Your task to perform on an android device: turn on javascript in the chrome app Image 0: 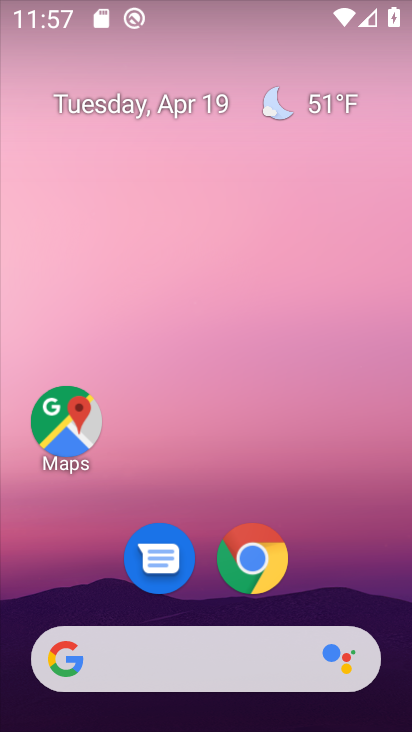
Step 0: click (251, 556)
Your task to perform on an android device: turn on javascript in the chrome app Image 1: 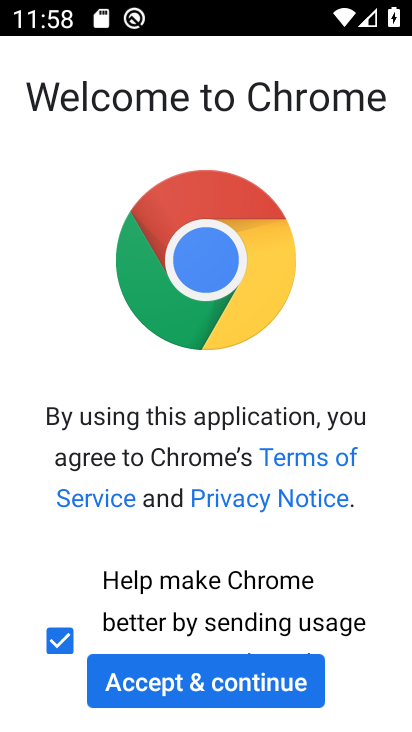
Step 1: click (192, 699)
Your task to perform on an android device: turn on javascript in the chrome app Image 2: 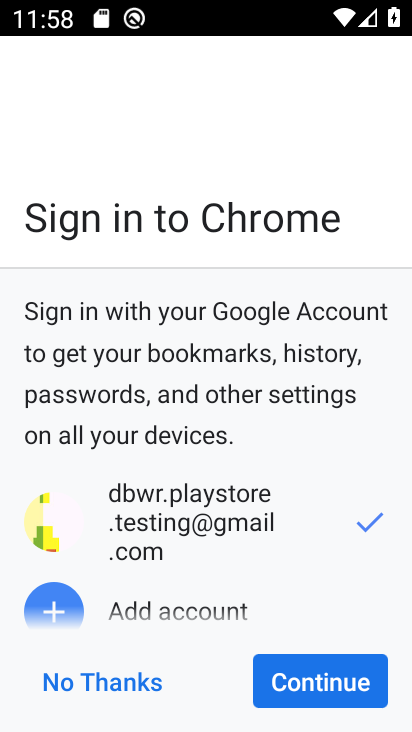
Step 2: click (321, 677)
Your task to perform on an android device: turn on javascript in the chrome app Image 3: 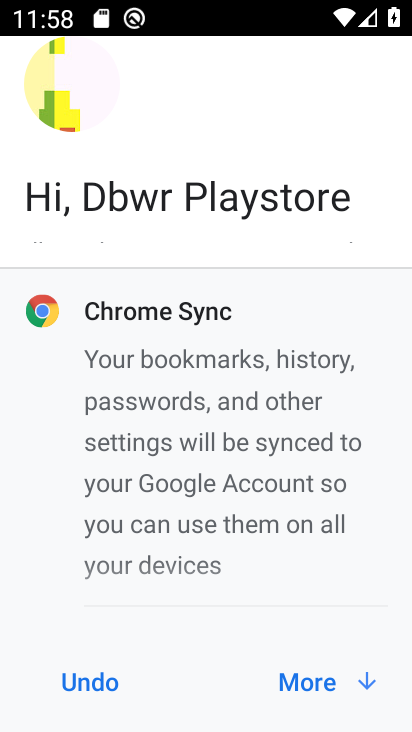
Step 3: click (330, 680)
Your task to perform on an android device: turn on javascript in the chrome app Image 4: 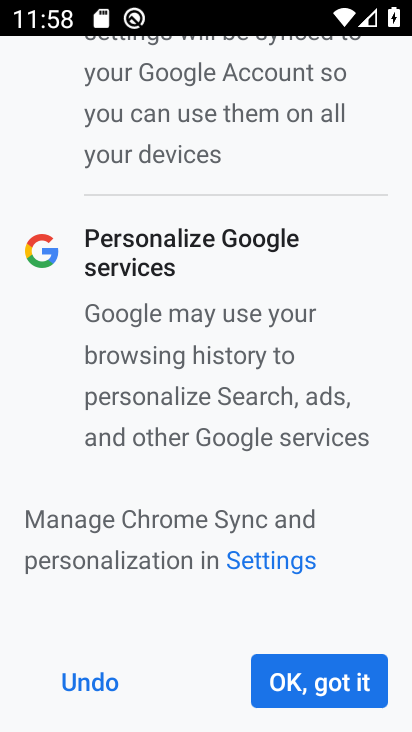
Step 4: click (322, 680)
Your task to perform on an android device: turn on javascript in the chrome app Image 5: 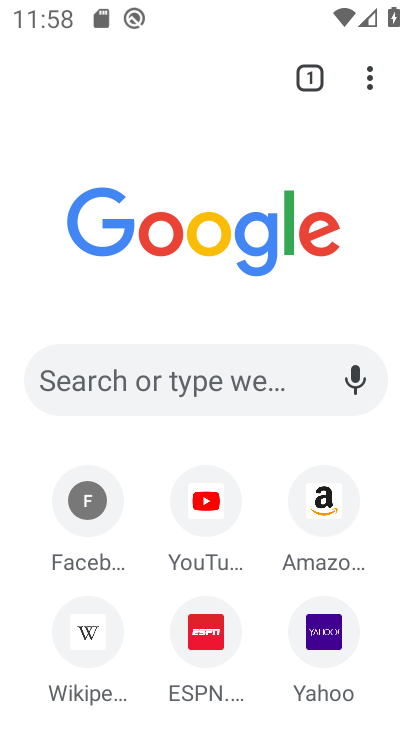
Step 5: click (375, 86)
Your task to perform on an android device: turn on javascript in the chrome app Image 6: 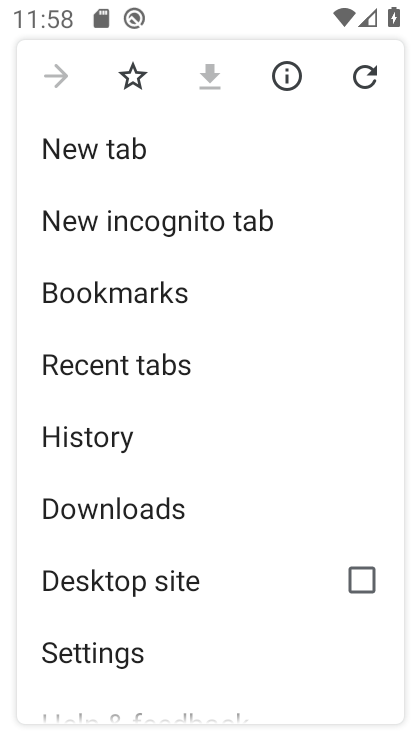
Step 6: drag from (221, 612) to (249, 358)
Your task to perform on an android device: turn on javascript in the chrome app Image 7: 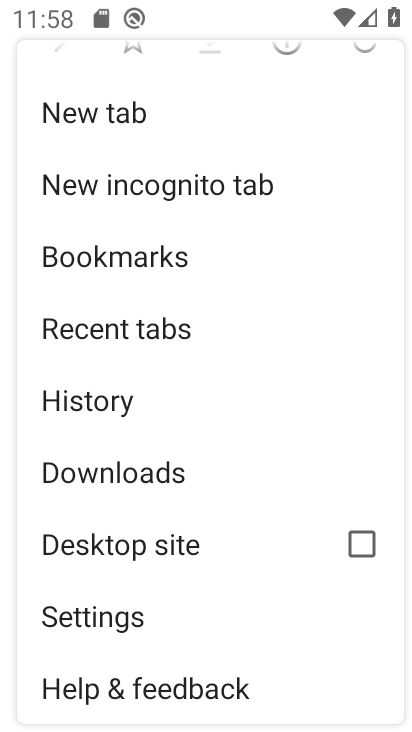
Step 7: click (109, 615)
Your task to perform on an android device: turn on javascript in the chrome app Image 8: 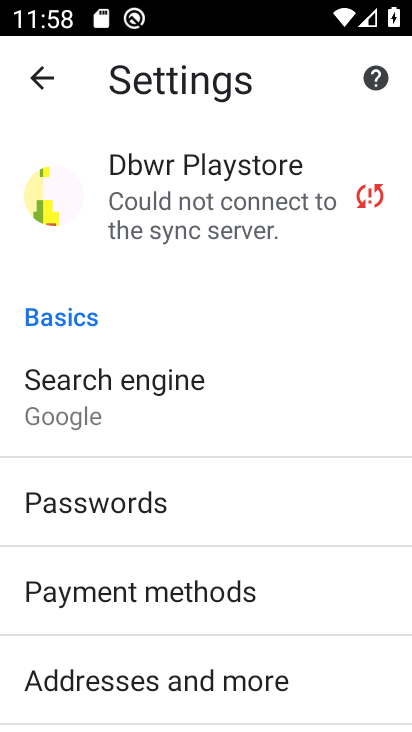
Step 8: drag from (289, 638) to (277, 365)
Your task to perform on an android device: turn on javascript in the chrome app Image 9: 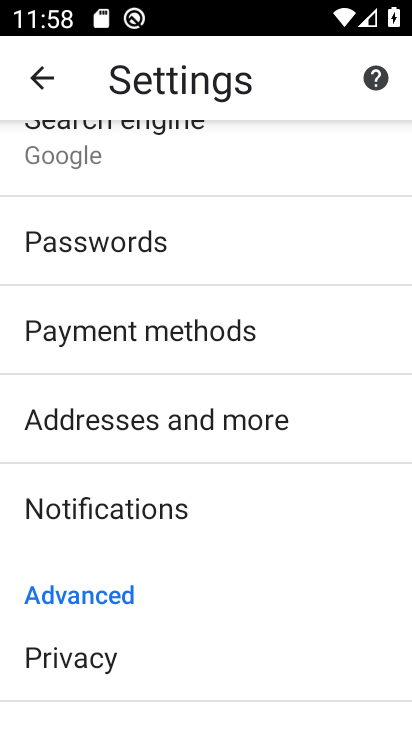
Step 9: drag from (249, 568) to (299, 304)
Your task to perform on an android device: turn on javascript in the chrome app Image 10: 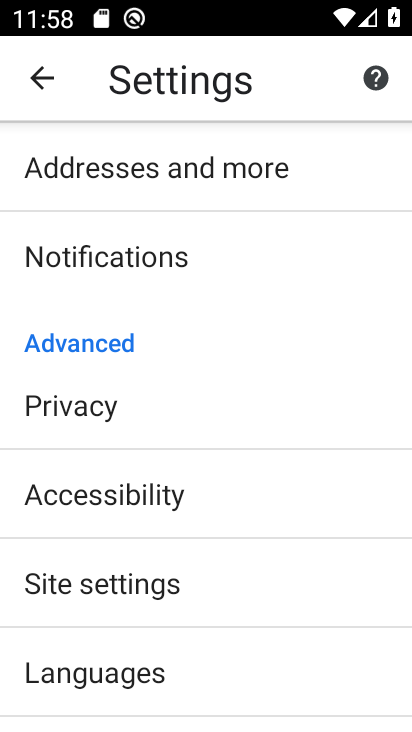
Step 10: click (100, 589)
Your task to perform on an android device: turn on javascript in the chrome app Image 11: 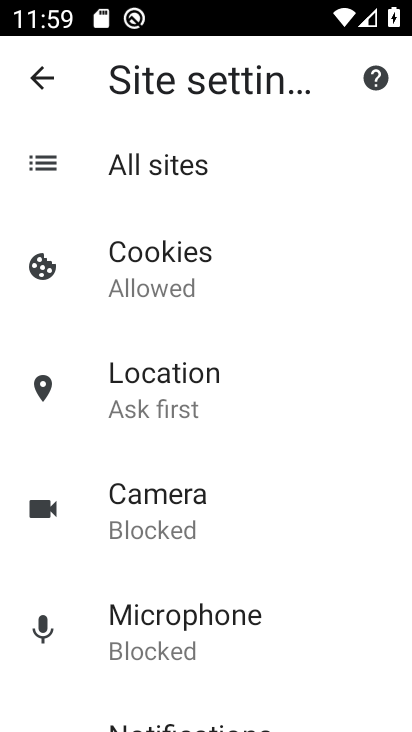
Step 11: drag from (310, 635) to (293, 355)
Your task to perform on an android device: turn on javascript in the chrome app Image 12: 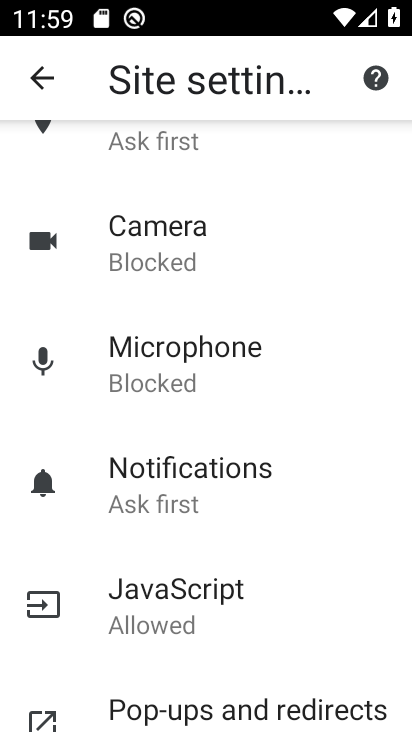
Step 12: click (161, 595)
Your task to perform on an android device: turn on javascript in the chrome app Image 13: 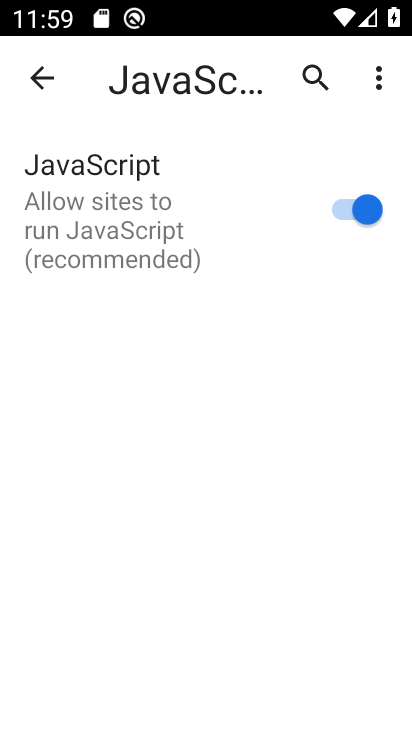
Step 13: task complete